Your task to perform on an android device: Do I have any events this weekend? Image 0: 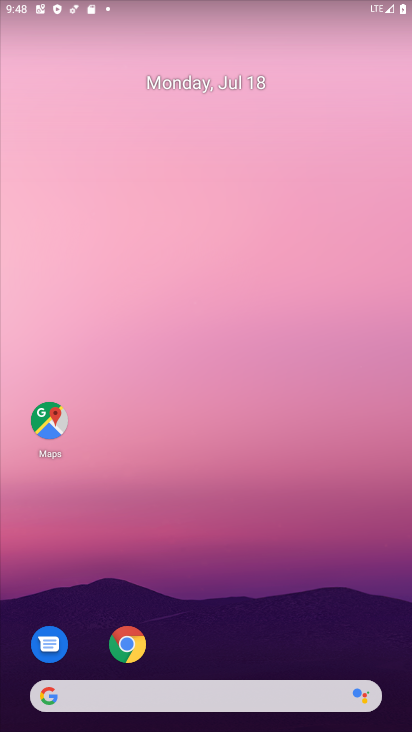
Step 0: drag from (303, 624) to (326, 162)
Your task to perform on an android device: Do I have any events this weekend? Image 1: 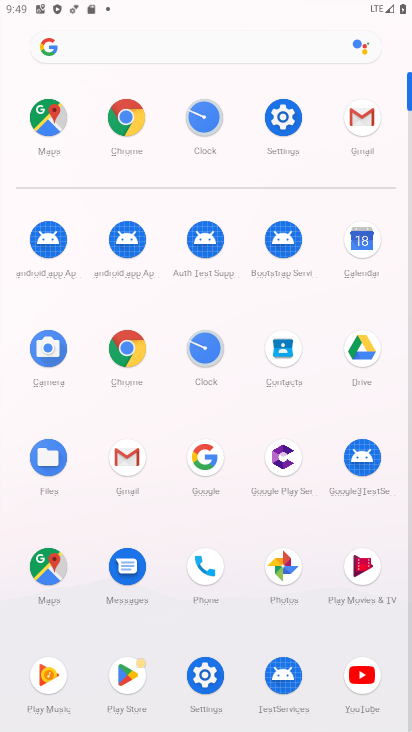
Step 1: click (365, 241)
Your task to perform on an android device: Do I have any events this weekend? Image 2: 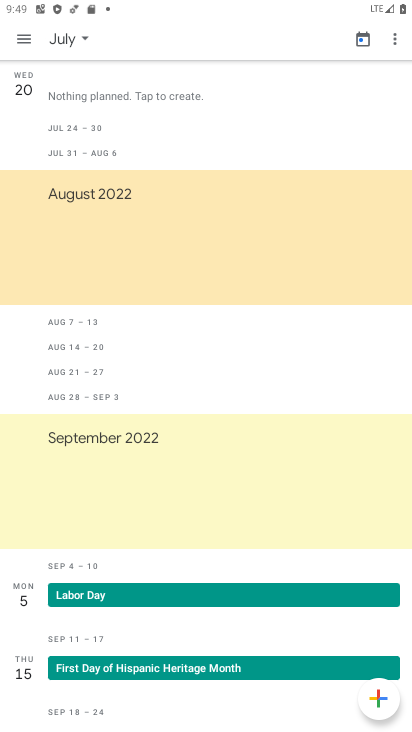
Step 2: click (86, 42)
Your task to perform on an android device: Do I have any events this weekend? Image 3: 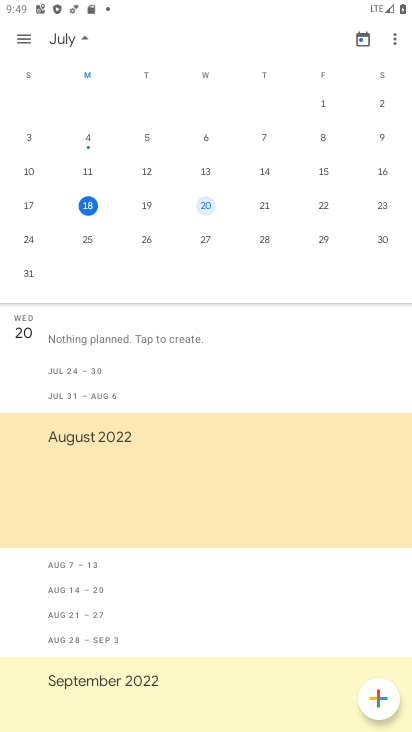
Step 3: task complete